Your task to perform on an android device: see sites visited before in the chrome app Image 0: 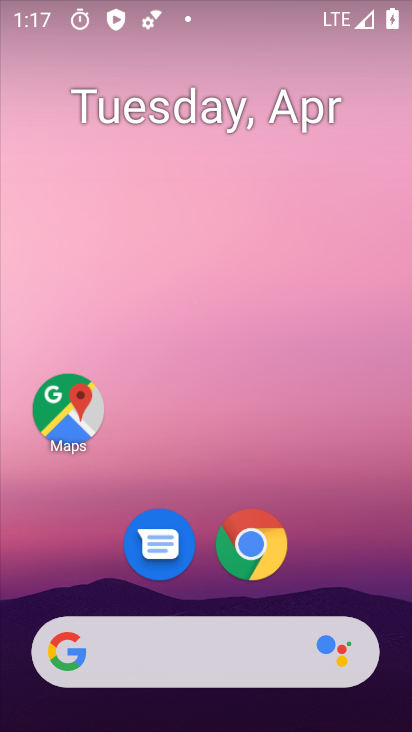
Step 0: click (264, 552)
Your task to perform on an android device: see sites visited before in the chrome app Image 1: 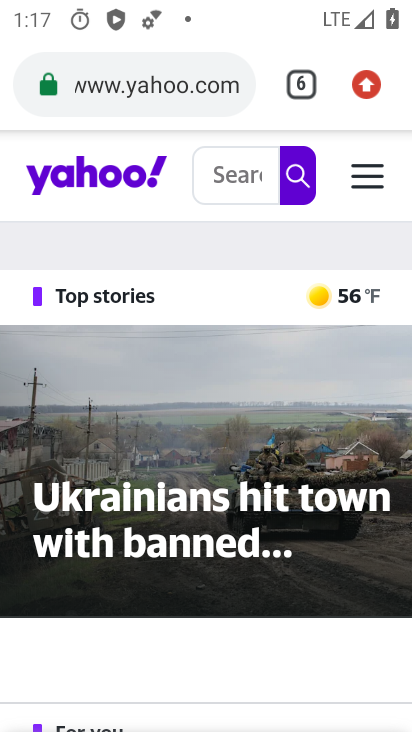
Step 1: click (370, 88)
Your task to perform on an android device: see sites visited before in the chrome app Image 2: 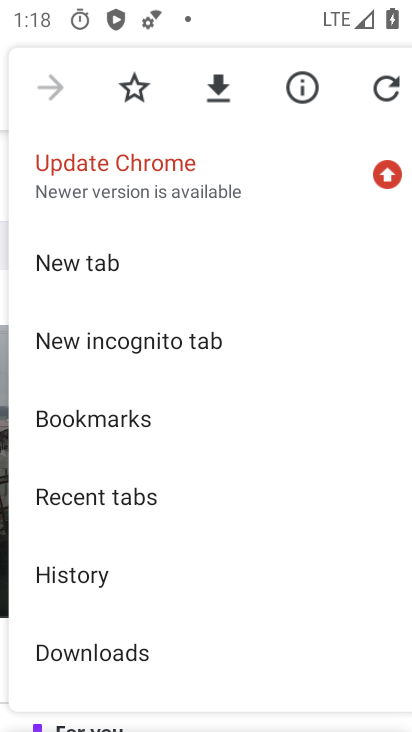
Step 2: click (76, 577)
Your task to perform on an android device: see sites visited before in the chrome app Image 3: 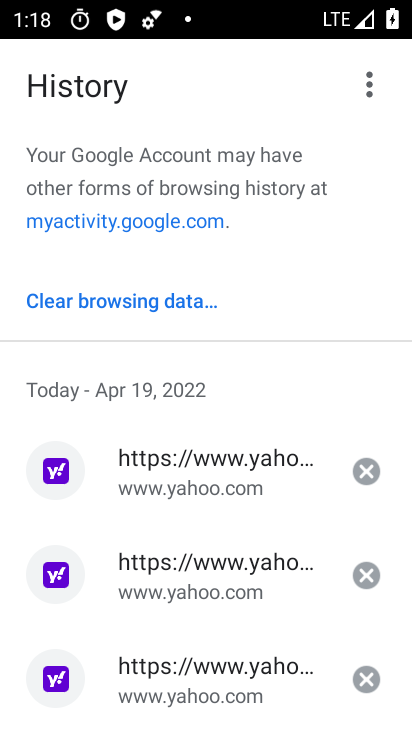
Step 3: task complete